Your task to perform on an android device: clear history in the chrome app Image 0: 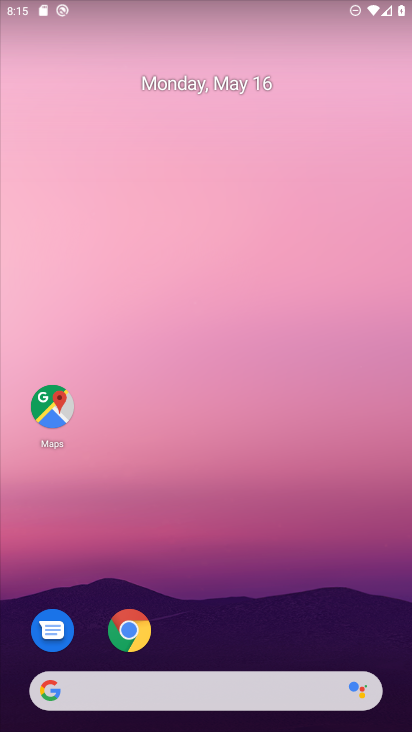
Step 0: drag from (312, 553) to (353, 57)
Your task to perform on an android device: clear history in the chrome app Image 1: 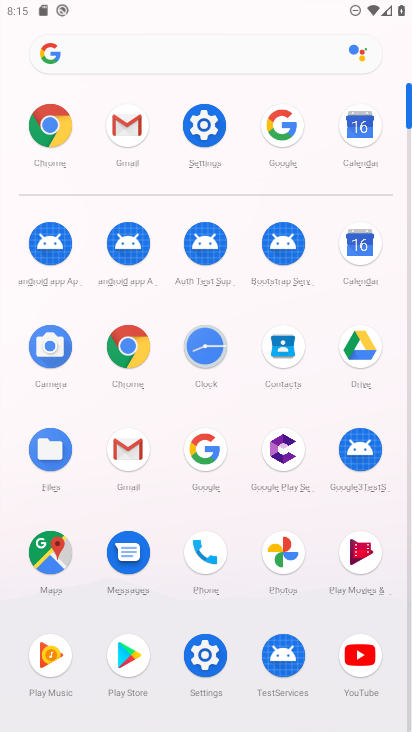
Step 1: click (43, 127)
Your task to perform on an android device: clear history in the chrome app Image 2: 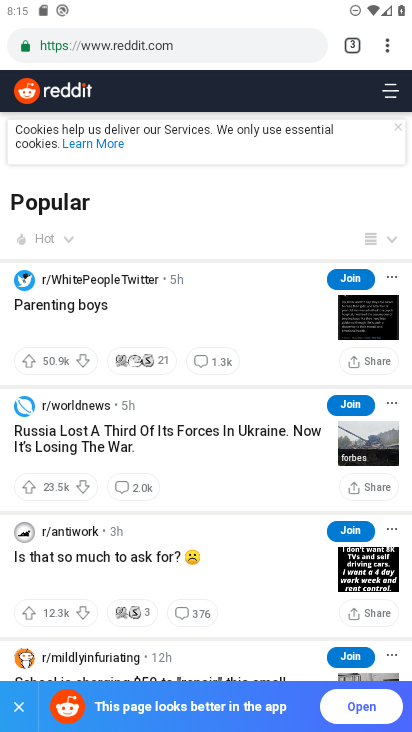
Step 2: click (398, 50)
Your task to perform on an android device: clear history in the chrome app Image 3: 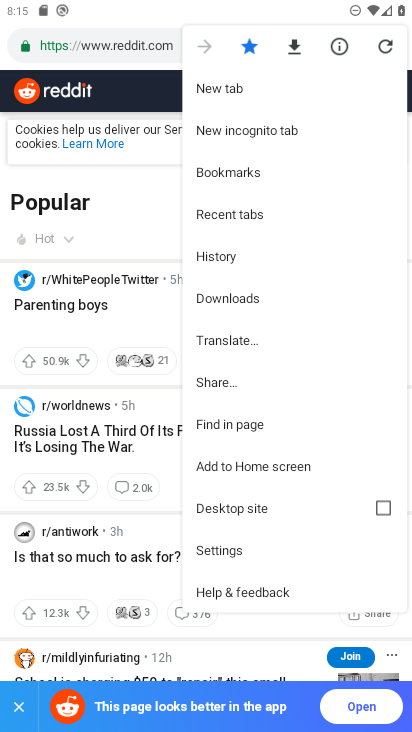
Step 3: drag from (315, 536) to (342, 74)
Your task to perform on an android device: clear history in the chrome app Image 4: 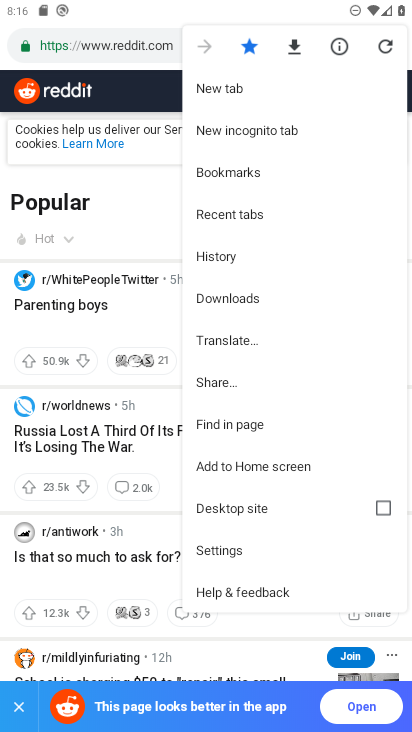
Step 4: click (238, 547)
Your task to perform on an android device: clear history in the chrome app Image 5: 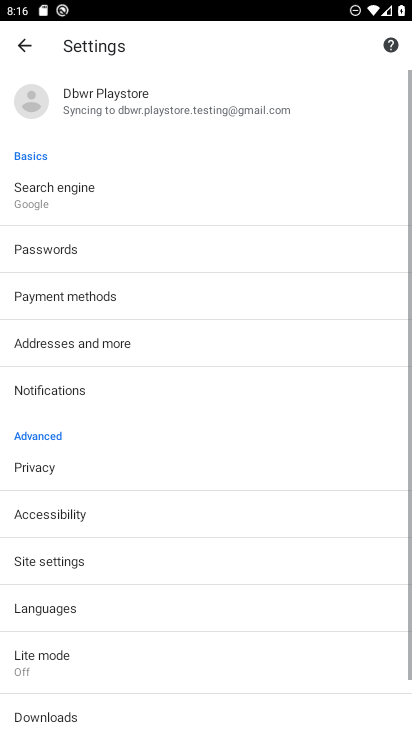
Step 5: drag from (181, 525) to (266, 54)
Your task to perform on an android device: clear history in the chrome app Image 6: 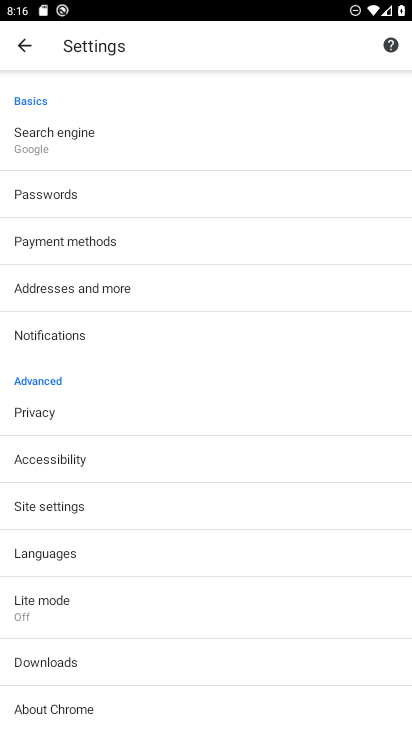
Step 6: drag from (195, 668) to (293, 165)
Your task to perform on an android device: clear history in the chrome app Image 7: 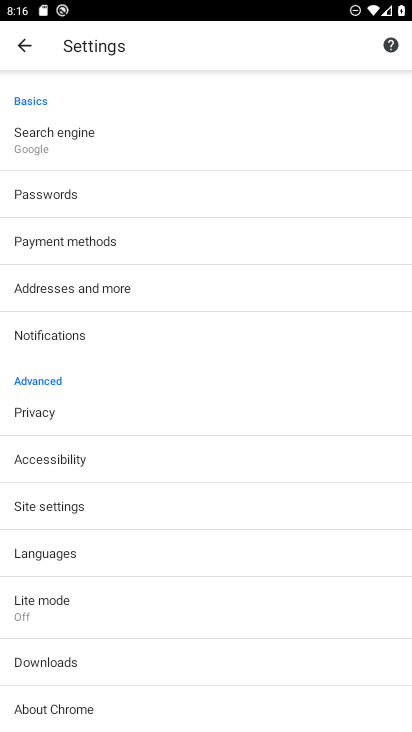
Step 7: click (22, 49)
Your task to perform on an android device: clear history in the chrome app Image 8: 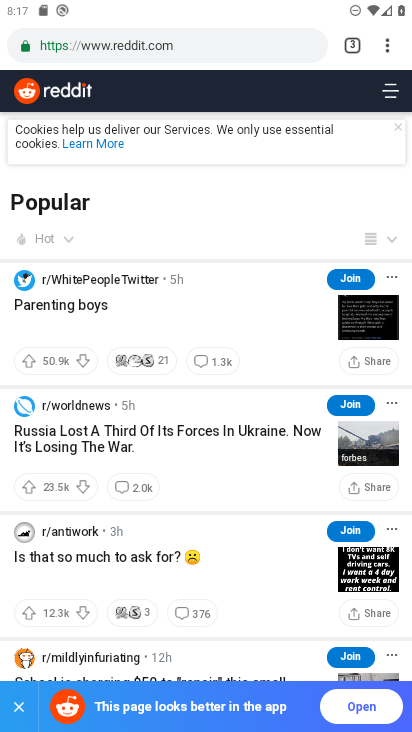
Step 8: click (392, 44)
Your task to perform on an android device: clear history in the chrome app Image 9: 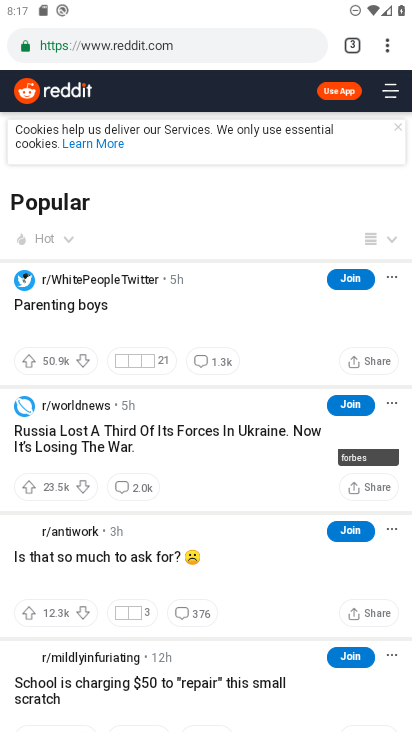
Step 9: click (386, 39)
Your task to perform on an android device: clear history in the chrome app Image 10: 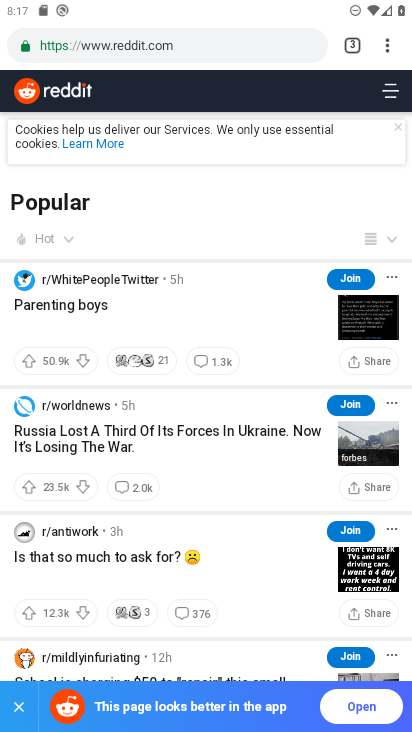
Step 10: click (385, 41)
Your task to perform on an android device: clear history in the chrome app Image 11: 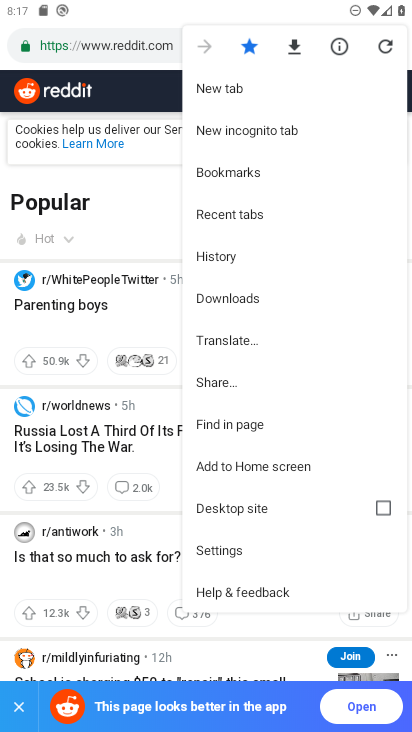
Step 11: click (240, 261)
Your task to perform on an android device: clear history in the chrome app Image 12: 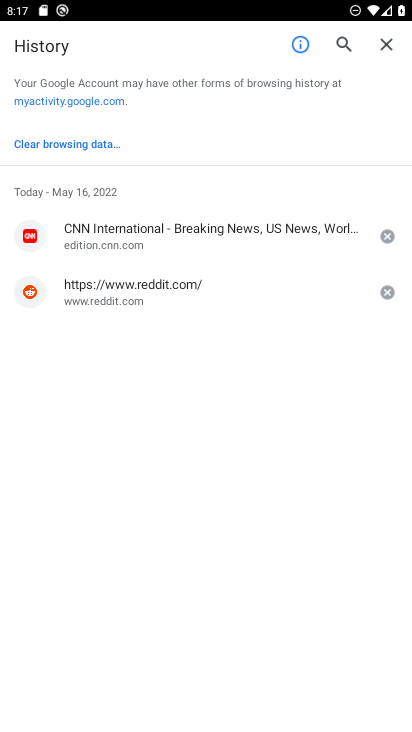
Step 12: click (83, 136)
Your task to perform on an android device: clear history in the chrome app Image 13: 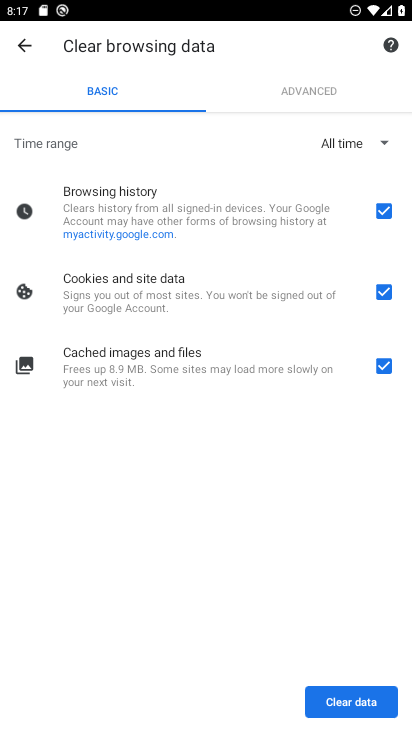
Step 13: click (340, 694)
Your task to perform on an android device: clear history in the chrome app Image 14: 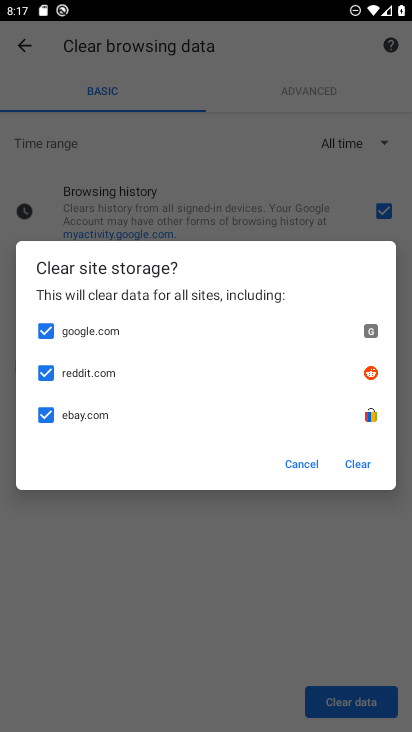
Step 14: click (367, 461)
Your task to perform on an android device: clear history in the chrome app Image 15: 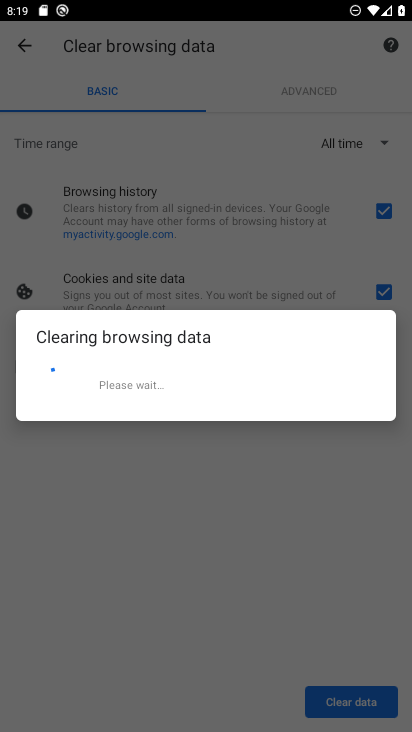
Step 15: task complete